Your task to perform on an android device: Open location settings Image 0: 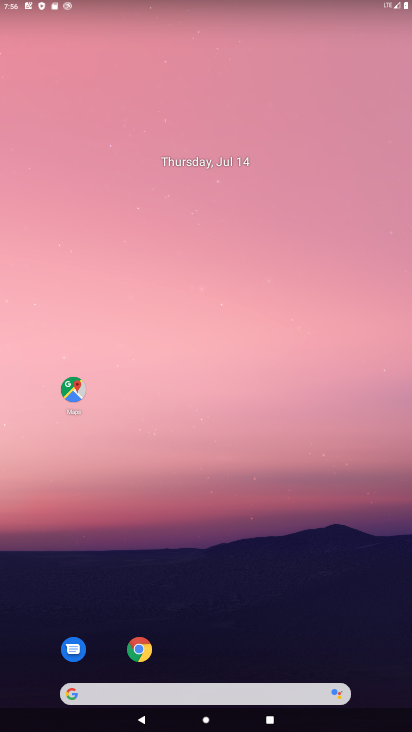
Step 0: drag from (281, 219) to (141, 16)
Your task to perform on an android device: Open location settings Image 1: 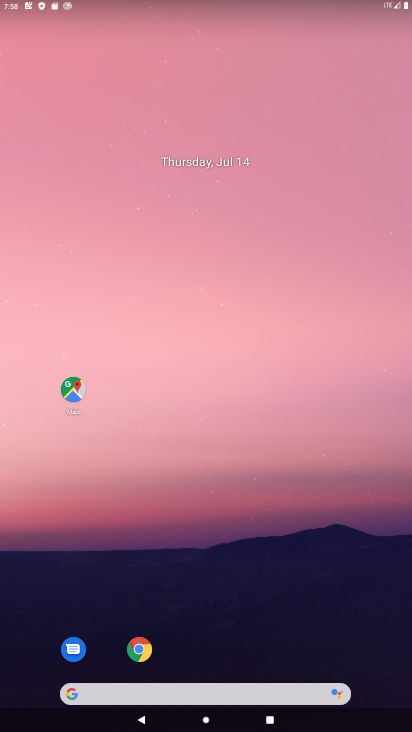
Step 1: drag from (134, 478) to (115, 63)
Your task to perform on an android device: Open location settings Image 2: 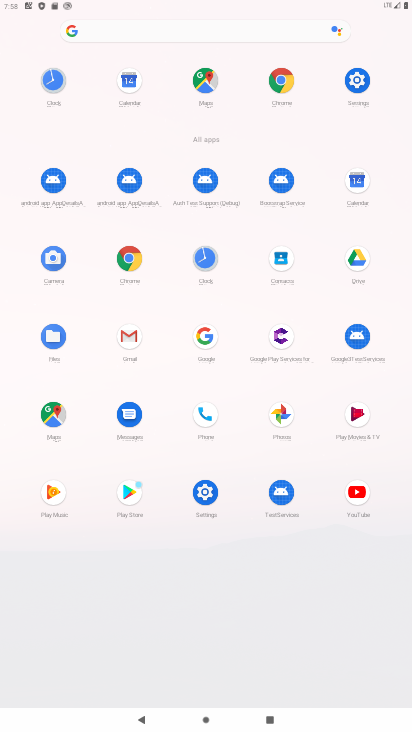
Step 2: click (359, 79)
Your task to perform on an android device: Open location settings Image 3: 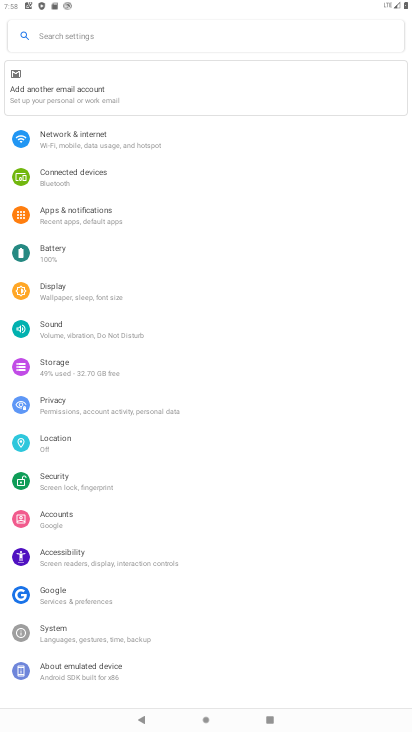
Step 3: click (67, 439)
Your task to perform on an android device: Open location settings Image 4: 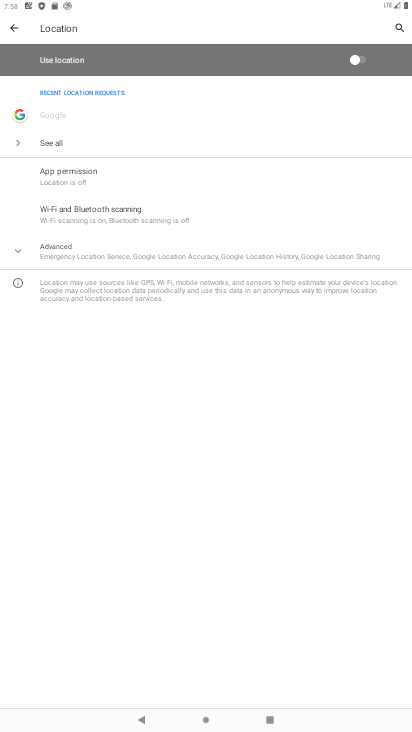
Step 4: task complete